Your task to perform on an android device: snooze an email in the gmail app Image 0: 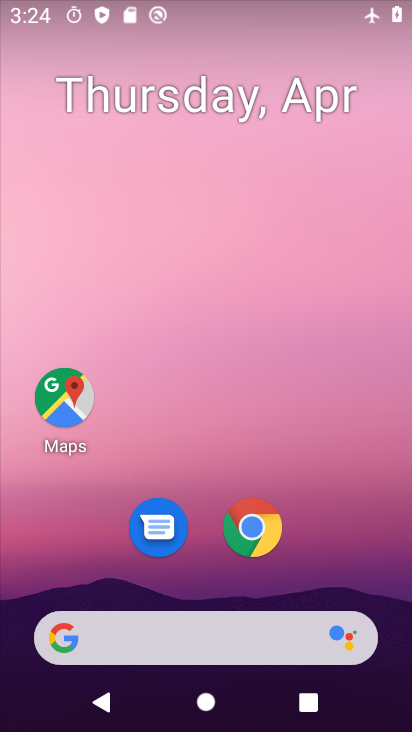
Step 0: drag from (340, 503) to (313, 100)
Your task to perform on an android device: snooze an email in the gmail app Image 1: 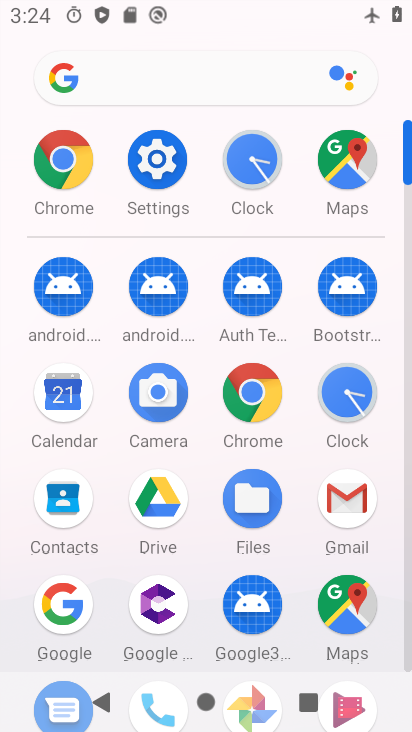
Step 1: click (343, 489)
Your task to perform on an android device: snooze an email in the gmail app Image 2: 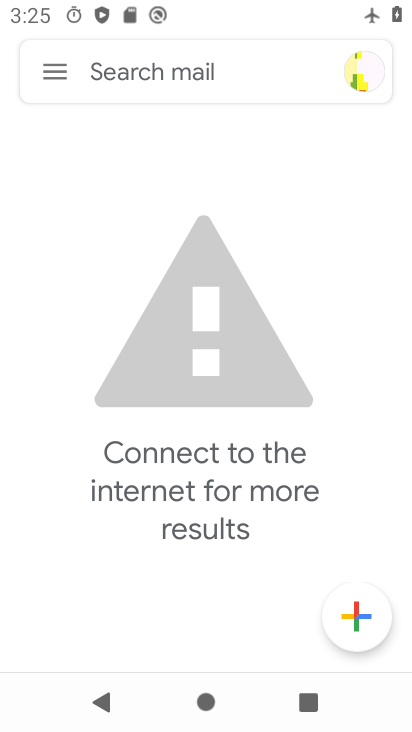
Step 2: task complete